Your task to perform on an android device: change the clock style Image 0: 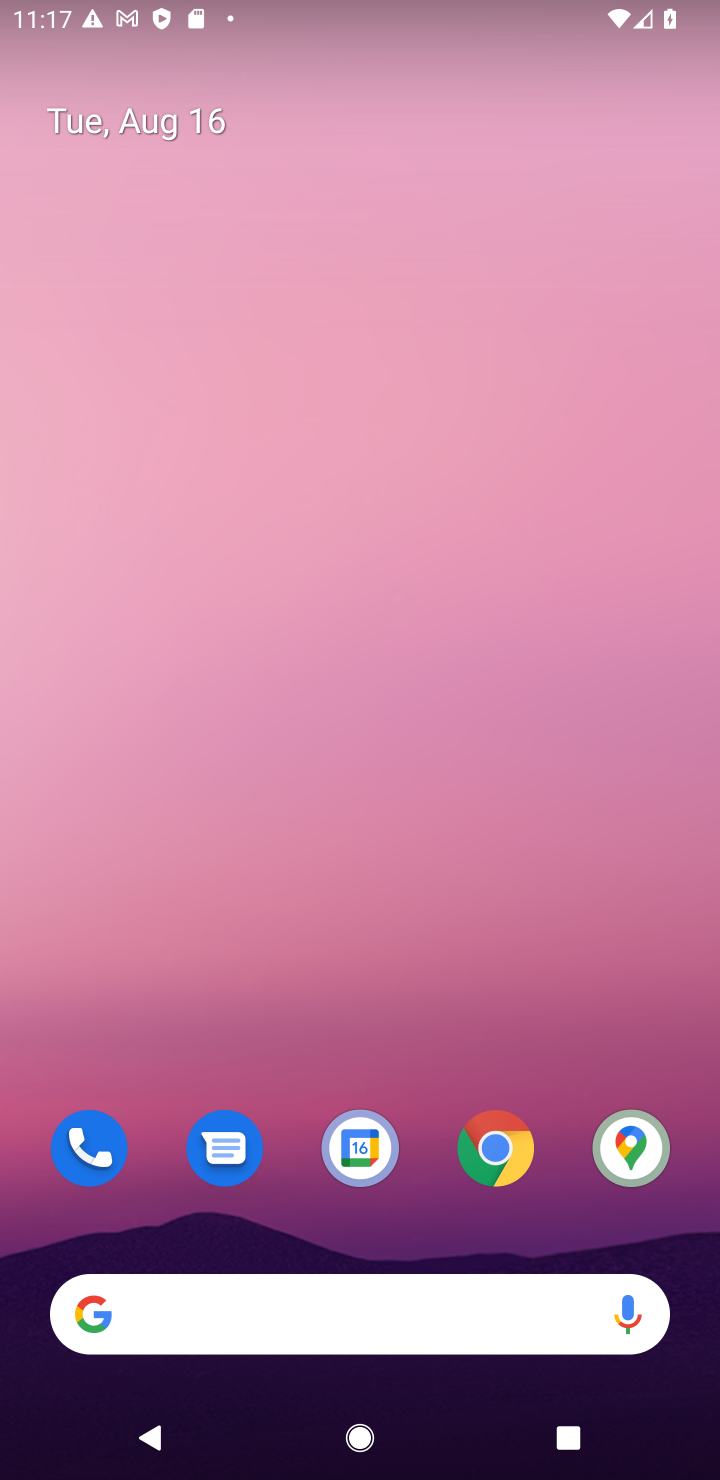
Step 0: press home button
Your task to perform on an android device: change the clock style Image 1: 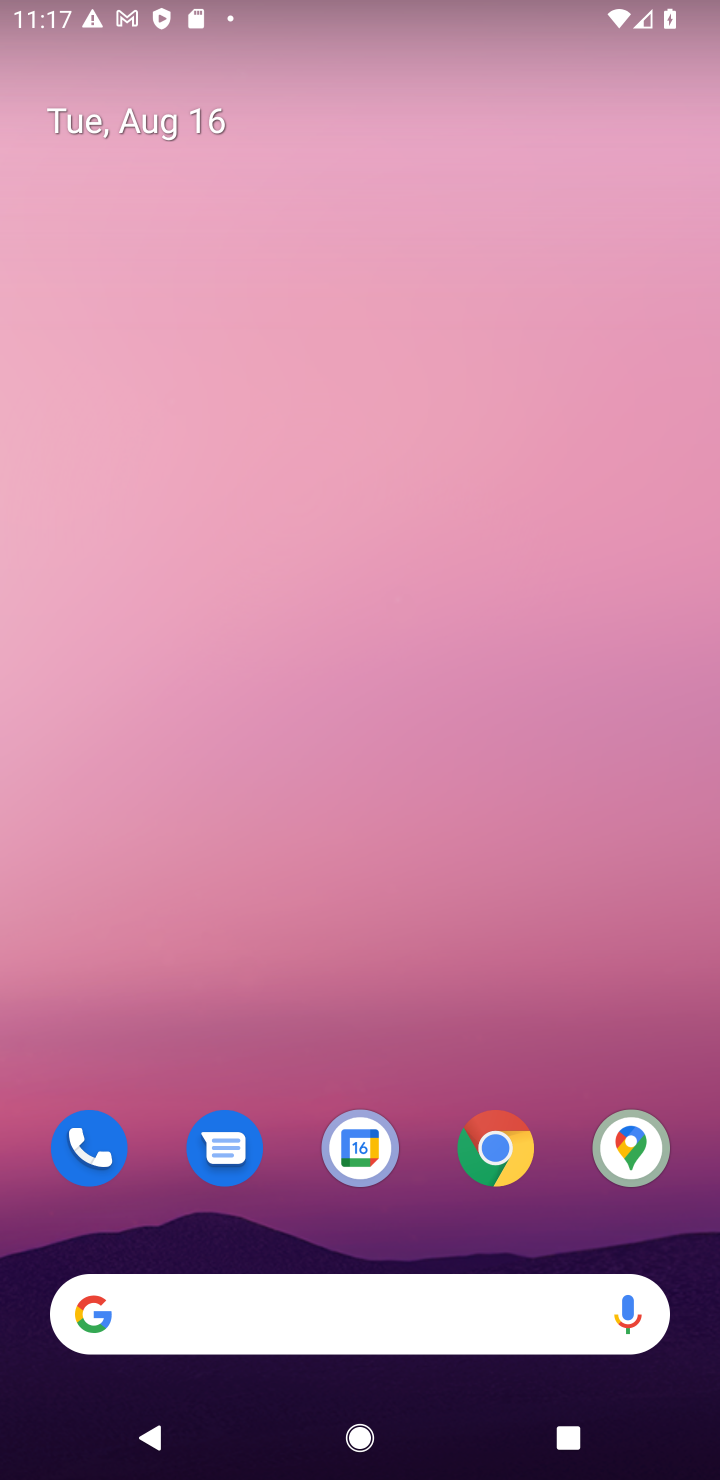
Step 1: press home button
Your task to perform on an android device: change the clock style Image 2: 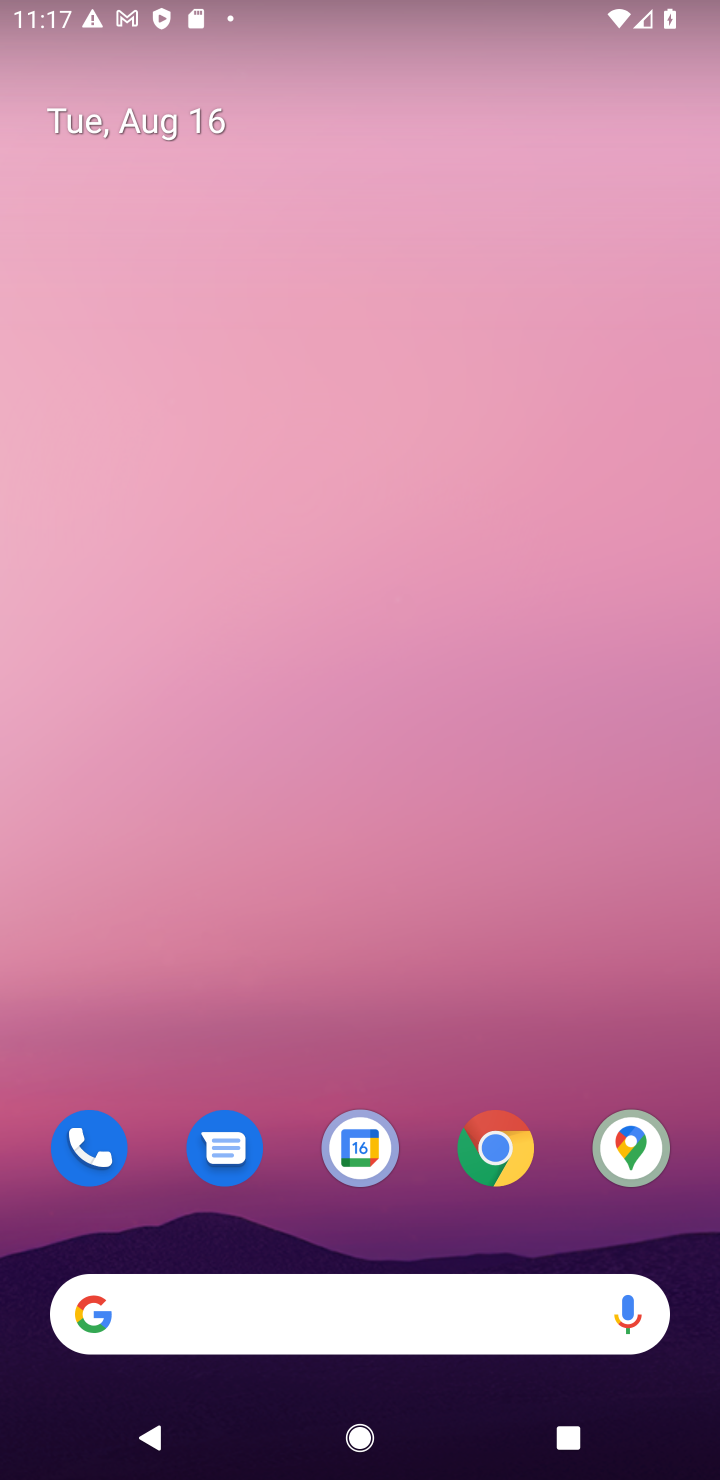
Step 2: drag from (433, 1203) to (325, 694)
Your task to perform on an android device: change the clock style Image 3: 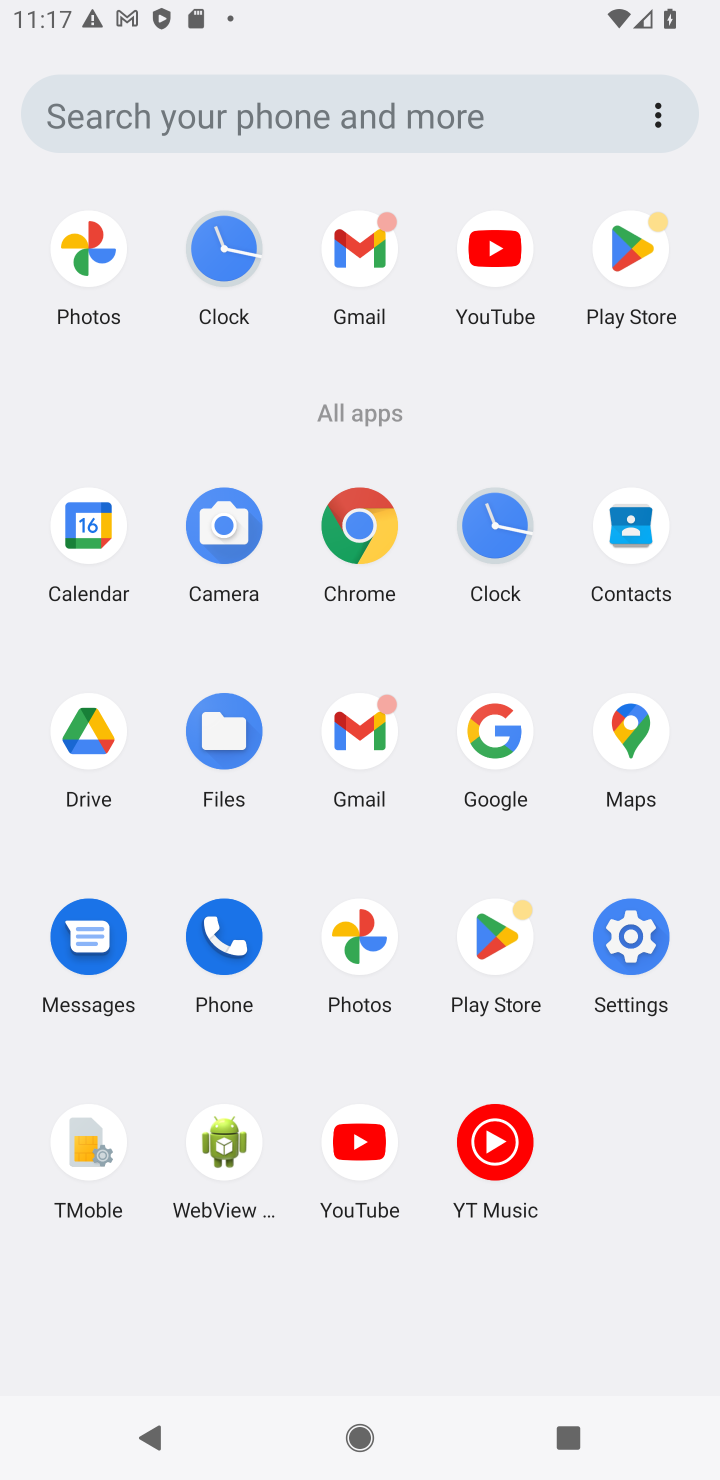
Step 3: click (220, 242)
Your task to perform on an android device: change the clock style Image 4: 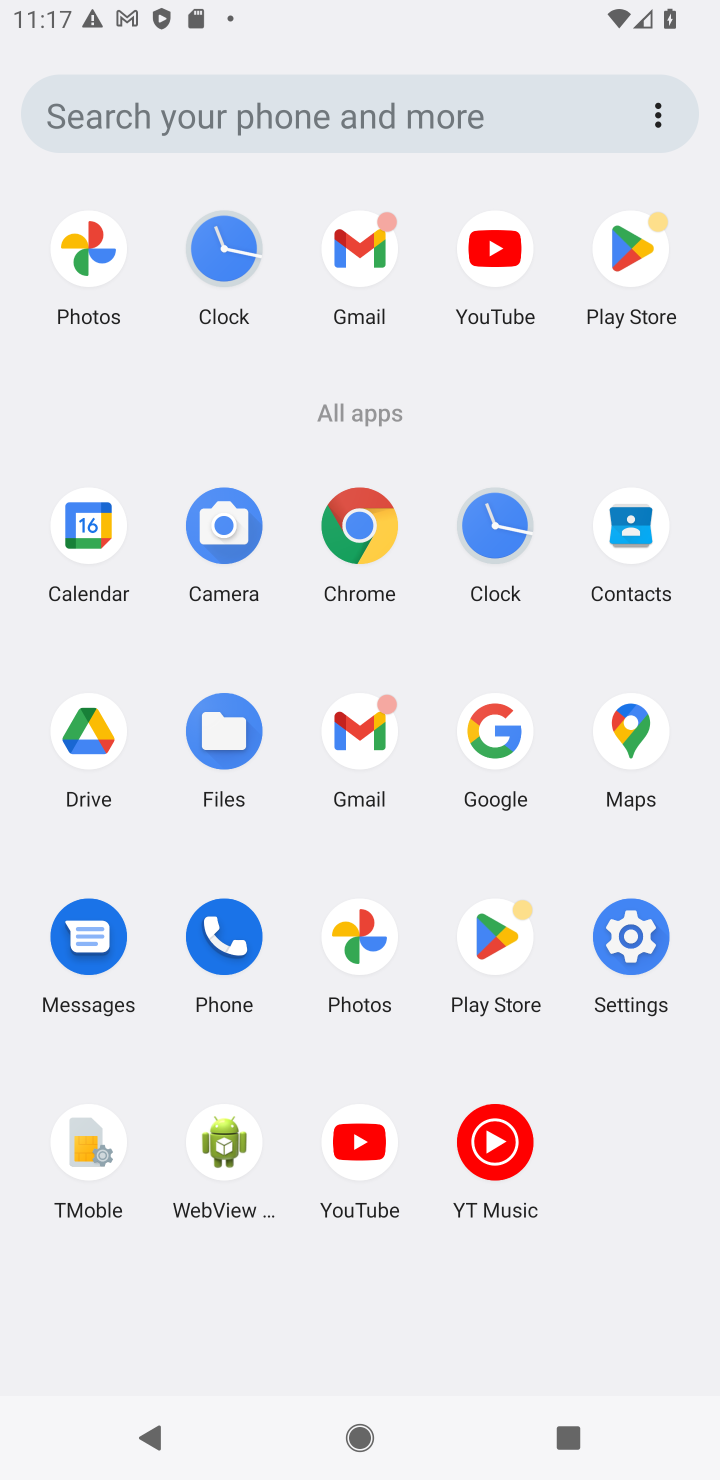
Step 4: click (220, 242)
Your task to perform on an android device: change the clock style Image 5: 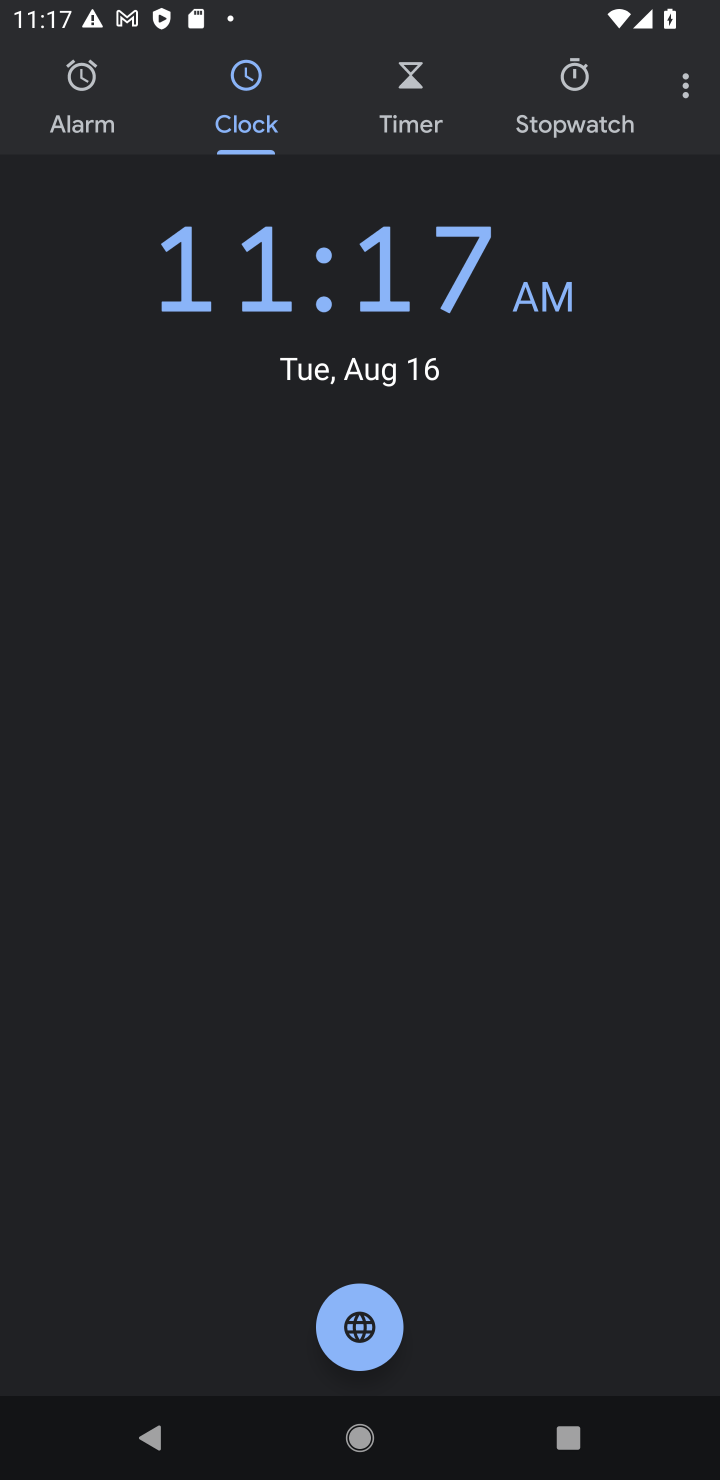
Step 5: click (685, 75)
Your task to perform on an android device: change the clock style Image 6: 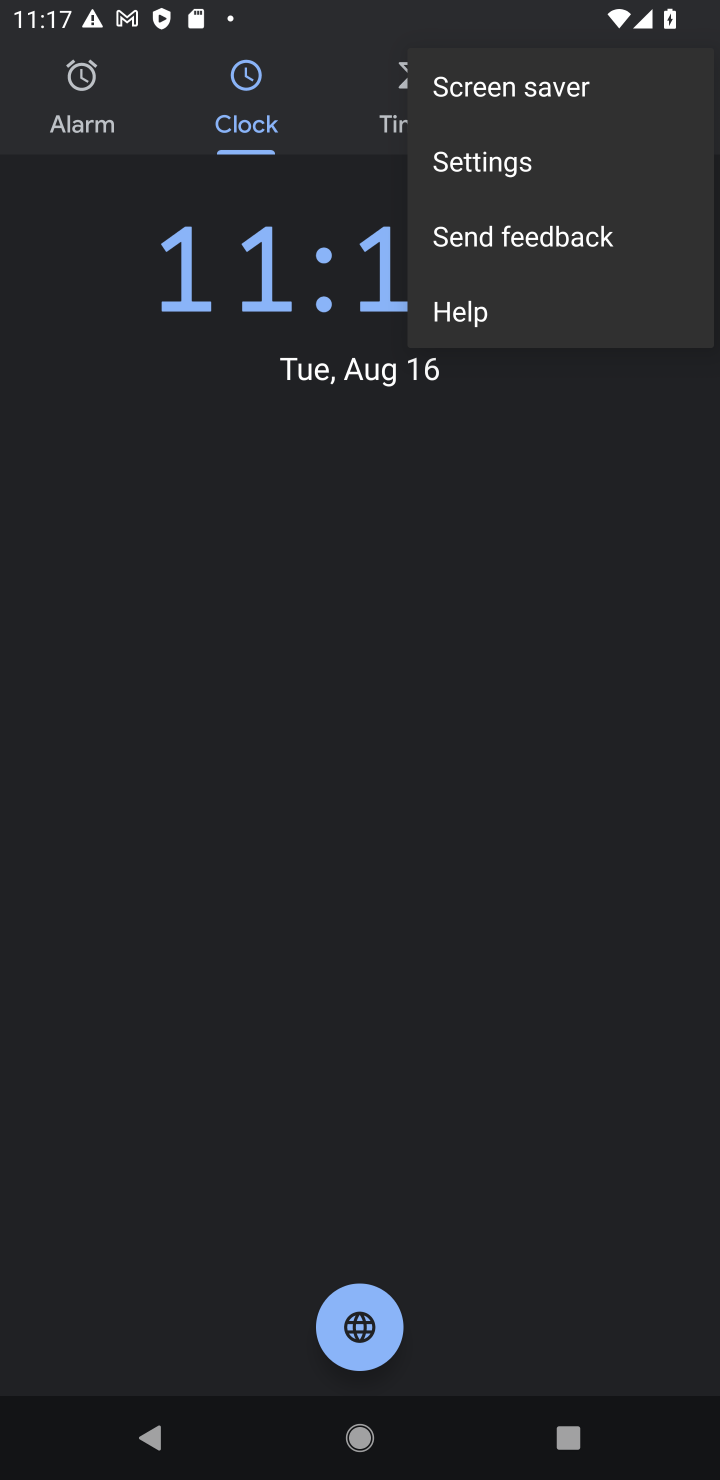
Step 6: click (477, 159)
Your task to perform on an android device: change the clock style Image 7: 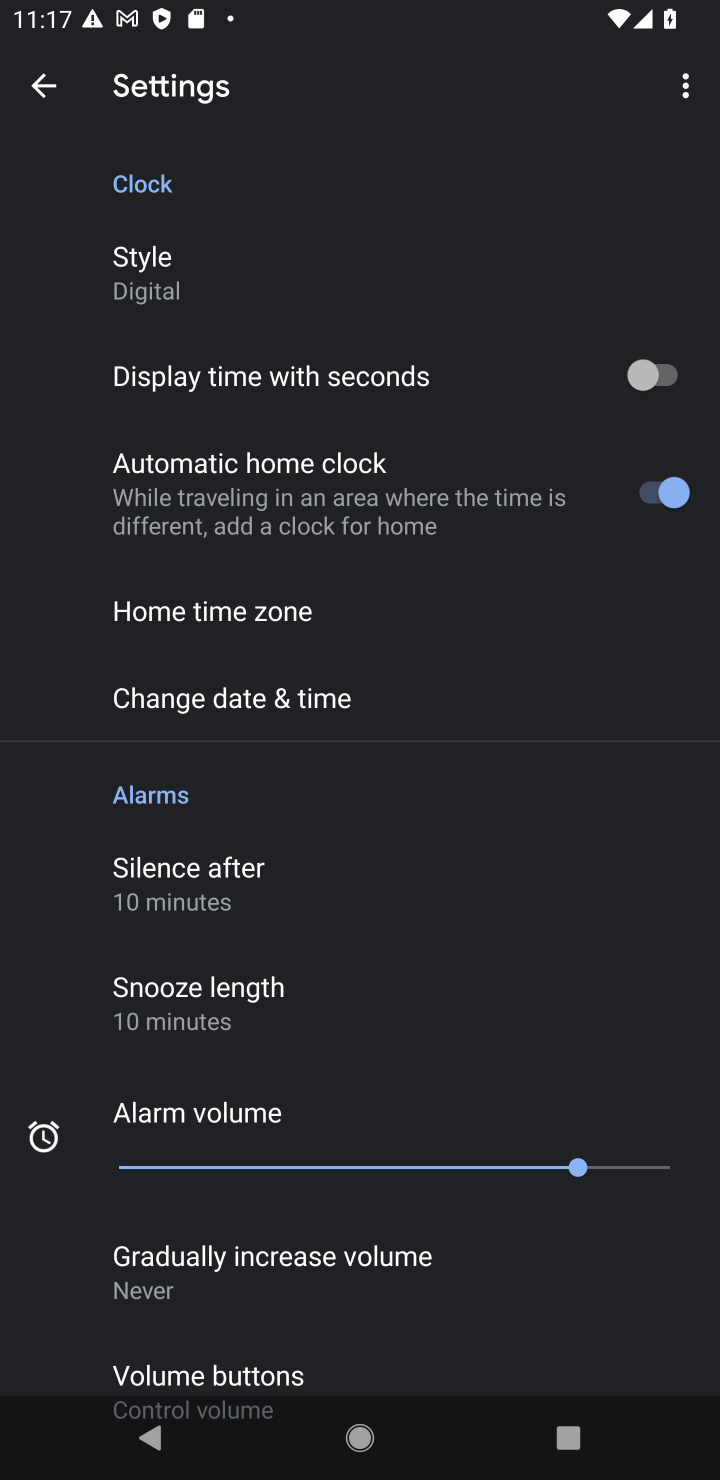
Step 7: click (196, 275)
Your task to perform on an android device: change the clock style Image 8: 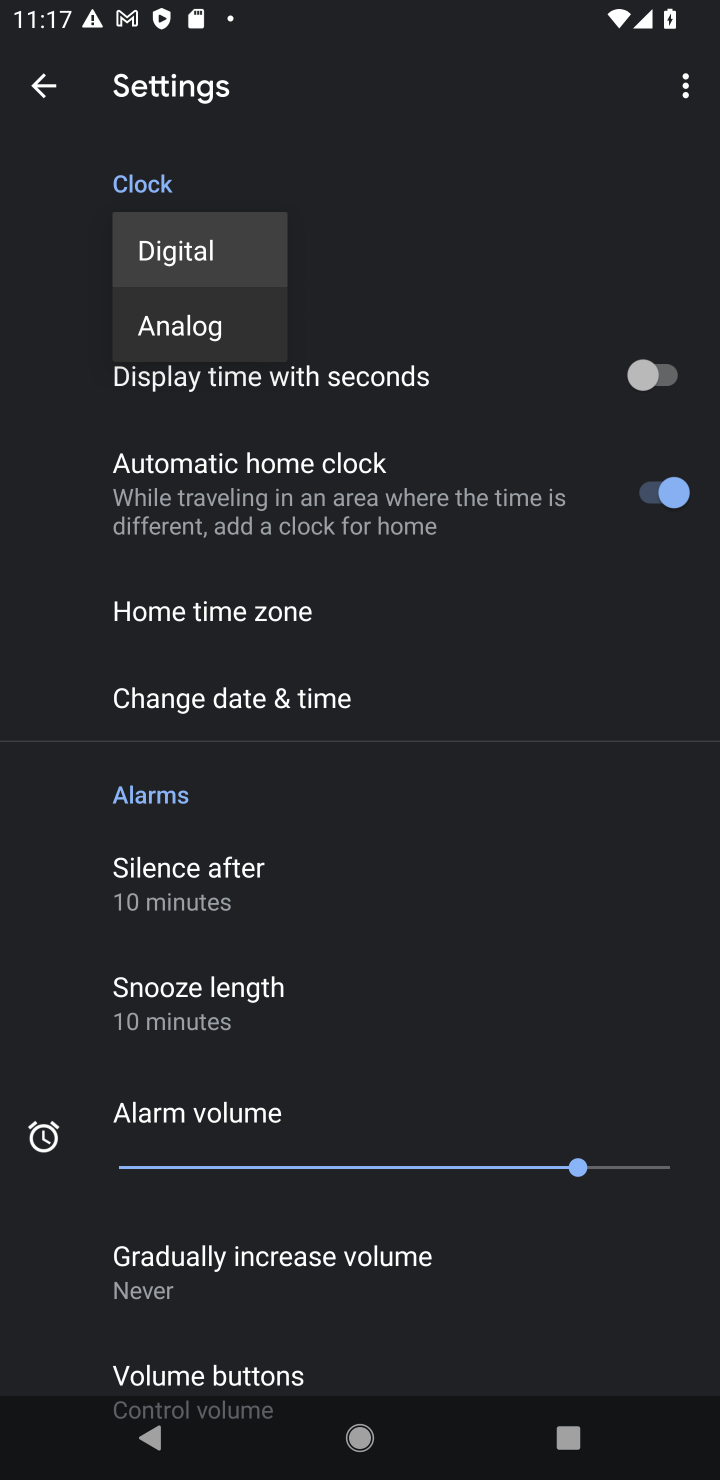
Step 8: click (212, 326)
Your task to perform on an android device: change the clock style Image 9: 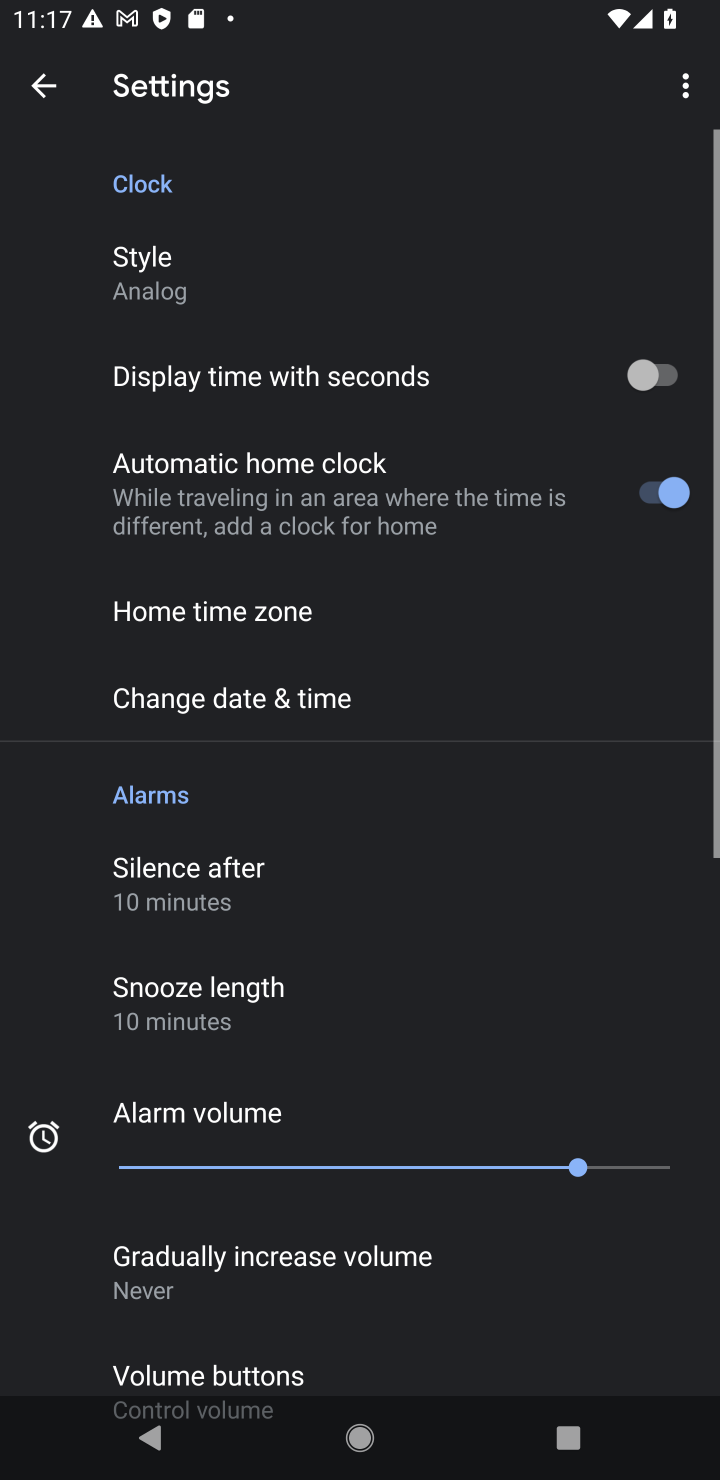
Step 9: task complete